Your task to perform on an android device: Go to Google maps Image 0: 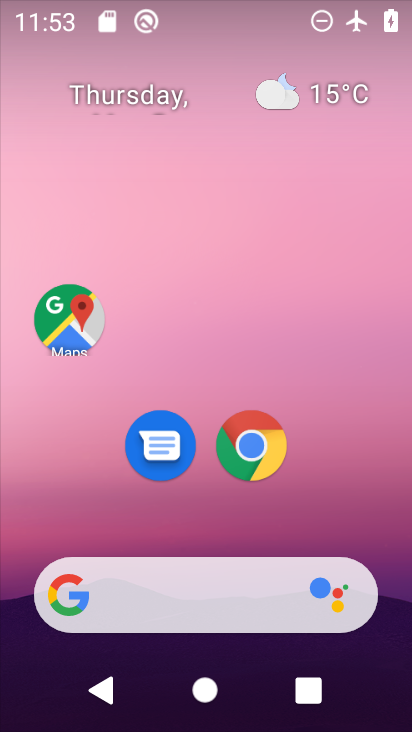
Step 0: click (74, 329)
Your task to perform on an android device: Go to Google maps Image 1: 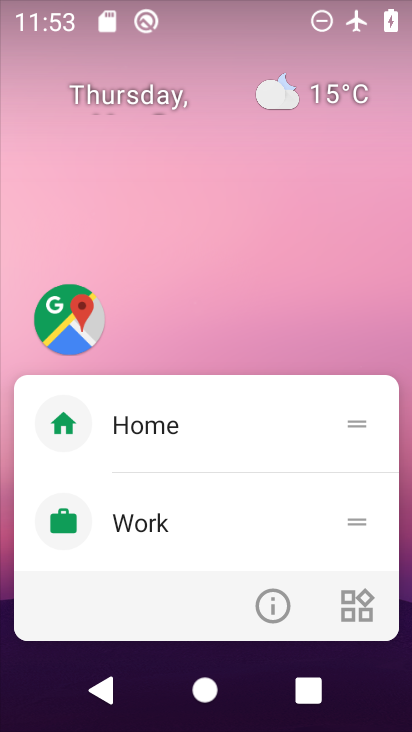
Step 1: click (73, 328)
Your task to perform on an android device: Go to Google maps Image 2: 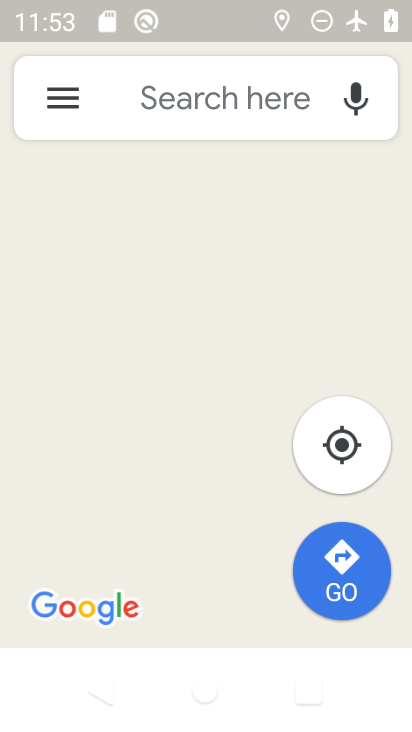
Step 2: task complete